Your task to perform on an android device: Open CNN.com Image 0: 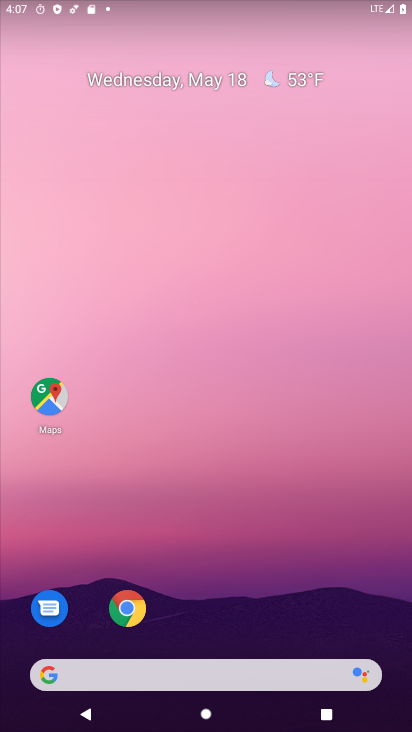
Step 0: drag from (105, 659) to (200, 42)
Your task to perform on an android device: Open CNN.com Image 1: 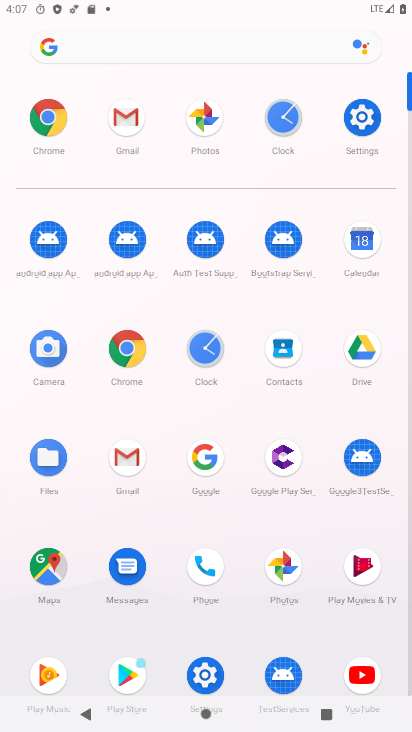
Step 1: click (125, 358)
Your task to perform on an android device: Open CNN.com Image 2: 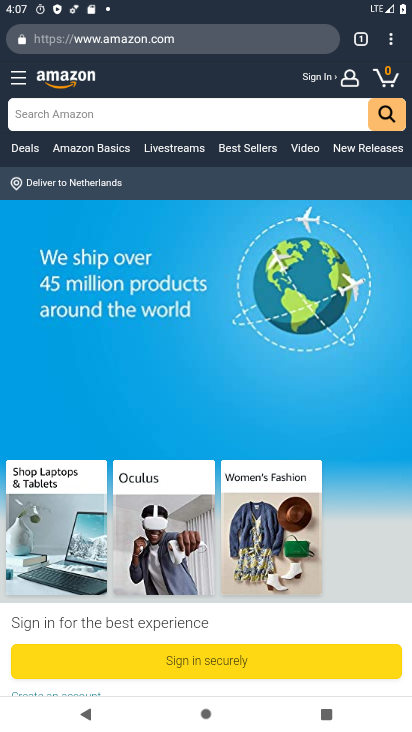
Step 2: click (188, 46)
Your task to perform on an android device: Open CNN.com Image 3: 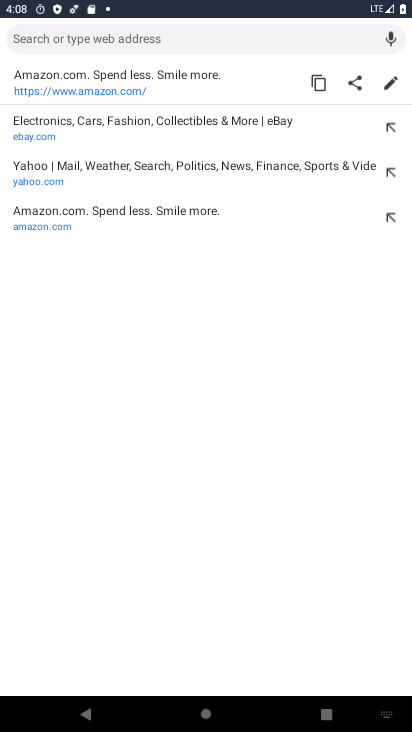
Step 3: type "cnn.com"
Your task to perform on an android device: Open CNN.com Image 4: 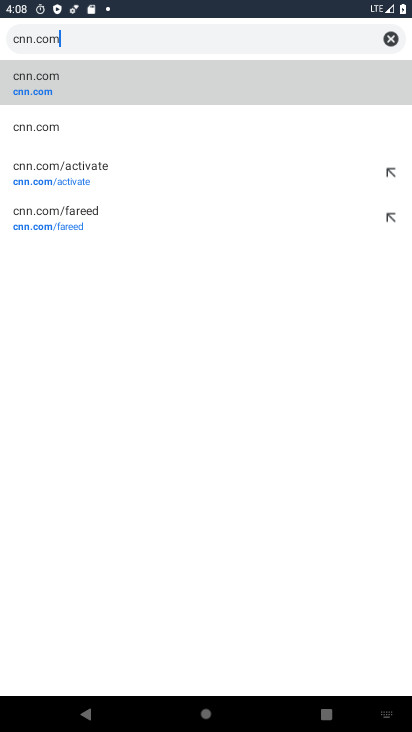
Step 4: click (55, 76)
Your task to perform on an android device: Open CNN.com Image 5: 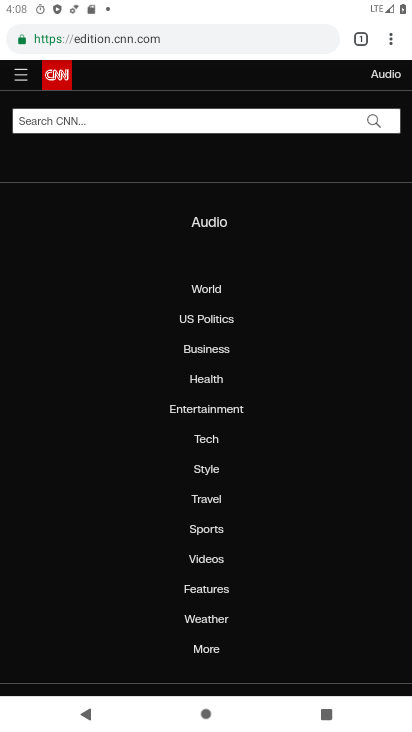
Step 5: task complete